Your task to perform on an android device: turn pop-ups off in chrome Image 0: 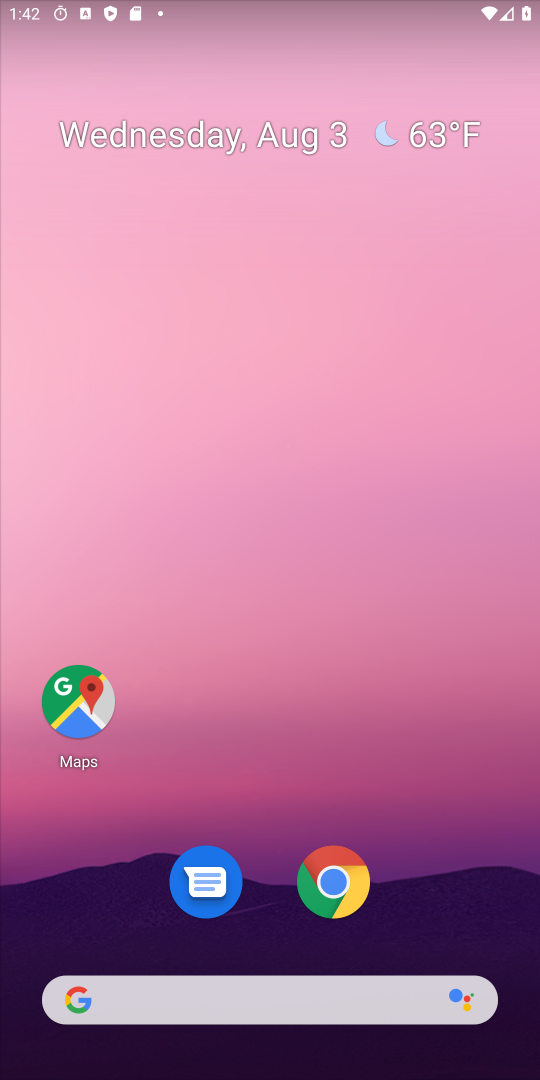
Step 0: drag from (287, 673) to (437, 232)
Your task to perform on an android device: turn pop-ups off in chrome Image 1: 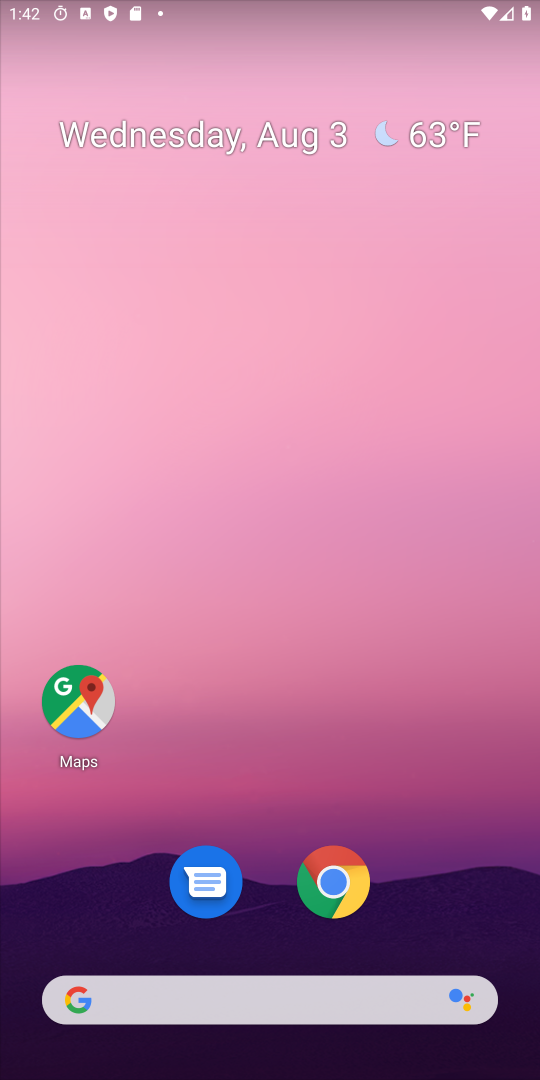
Step 1: drag from (288, 816) to (338, 2)
Your task to perform on an android device: turn pop-ups off in chrome Image 2: 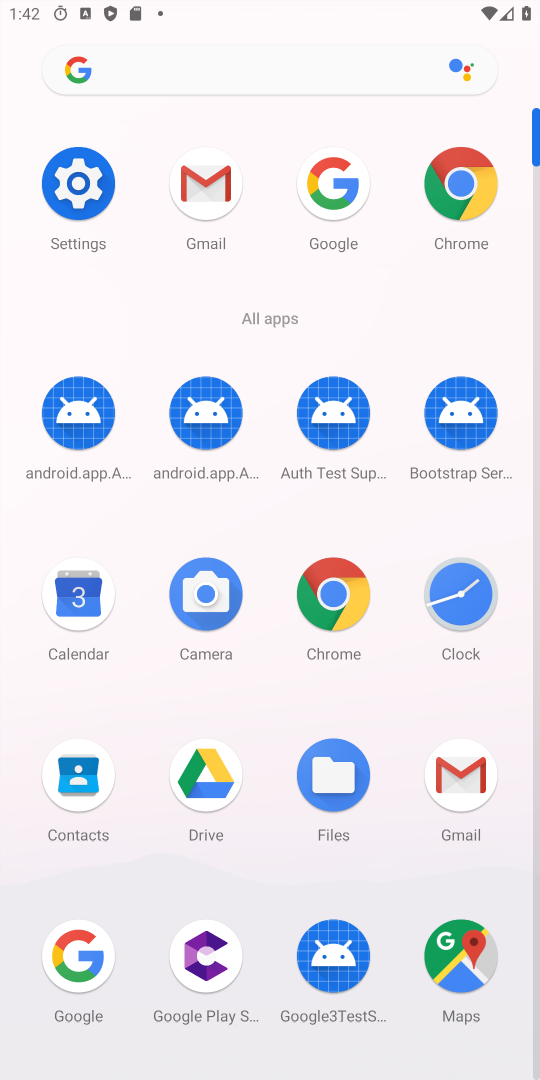
Step 2: click (335, 612)
Your task to perform on an android device: turn pop-ups off in chrome Image 3: 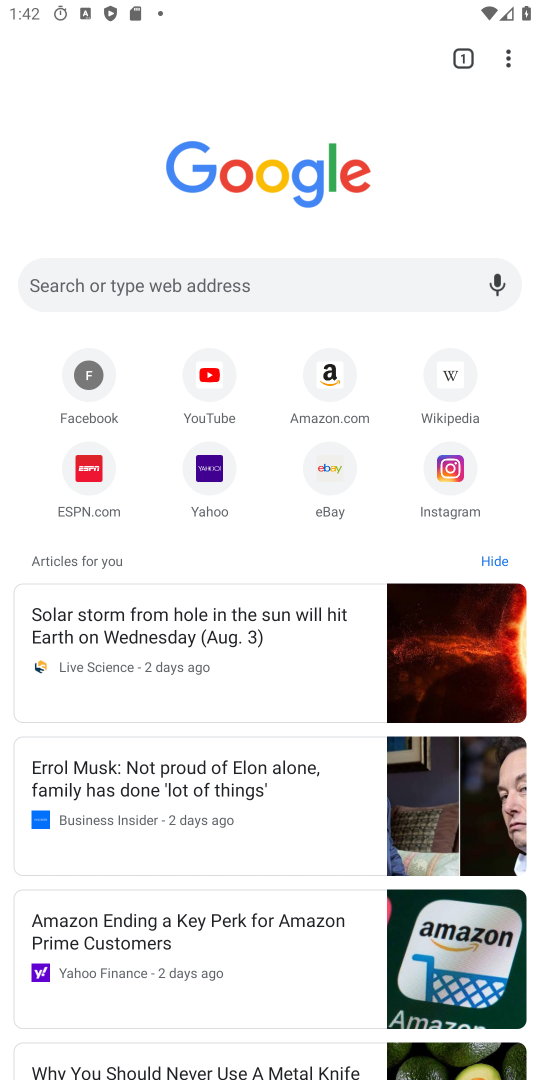
Step 3: click (511, 67)
Your task to perform on an android device: turn pop-ups off in chrome Image 4: 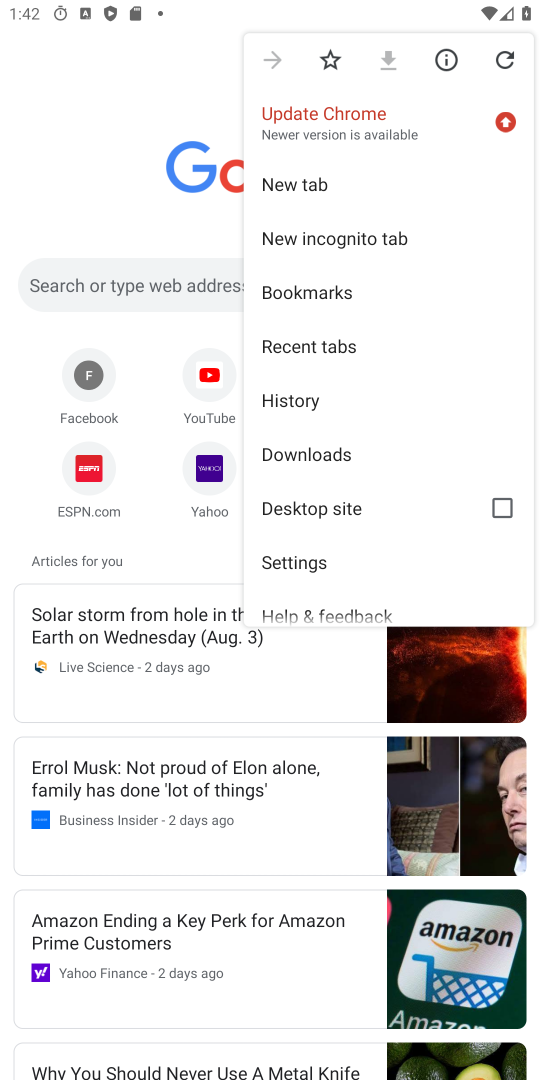
Step 4: click (299, 557)
Your task to perform on an android device: turn pop-ups off in chrome Image 5: 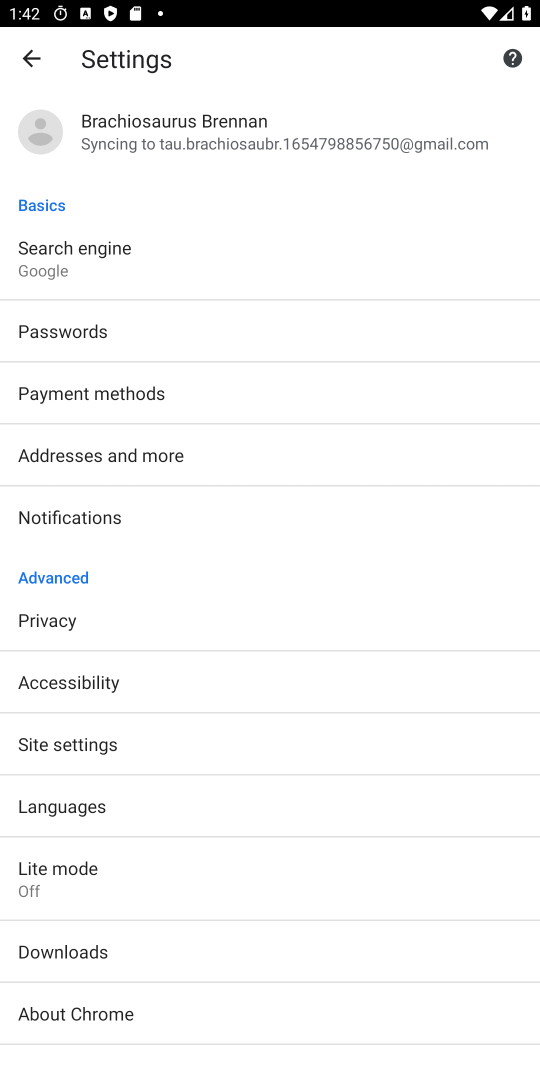
Step 5: click (153, 746)
Your task to perform on an android device: turn pop-ups off in chrome Image 6: 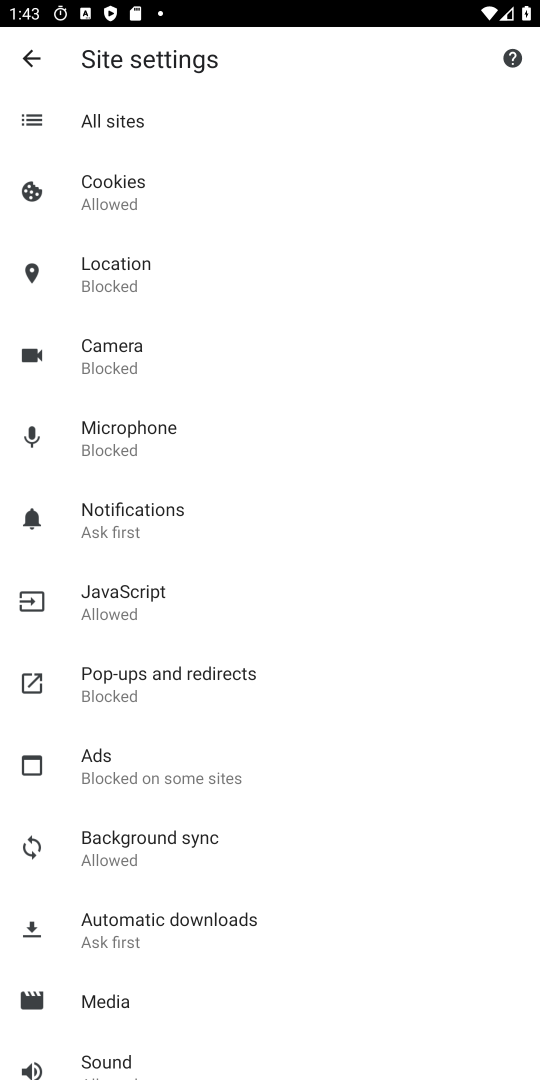
Step 6: click (209, 693)
Your task to perform on an android device: turn pop-ups off in chrome Image 7: 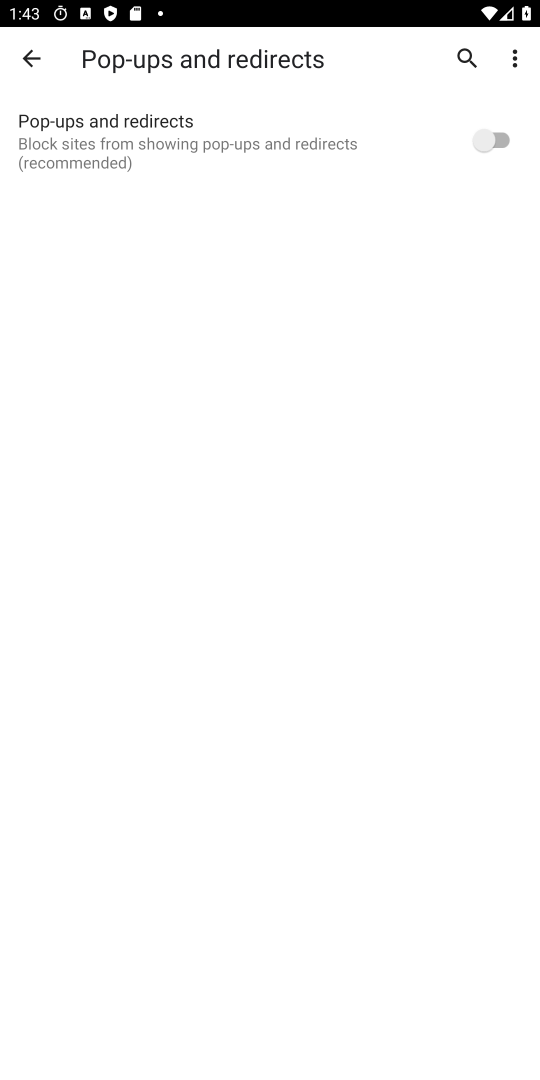
Step 7: task complete